Your task to perform on an android device: toggle improve location accuracy Image 0: 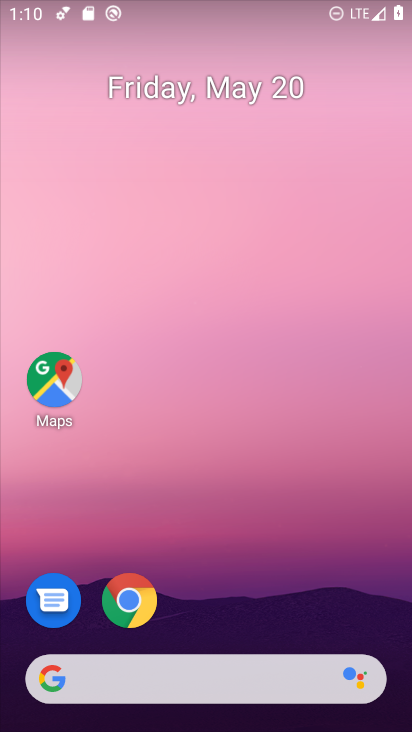
Step 0: drag from (159, 664) to (133, 103)
Your task to perform on an android device: toggle improve location accuracy Image 1: 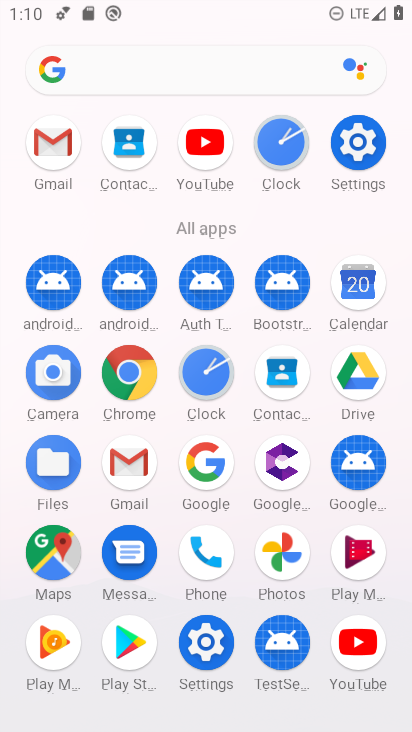
Step 1: click (374, 130)
Your task to perform on an android device: toggle improve location accuracy Image 2: 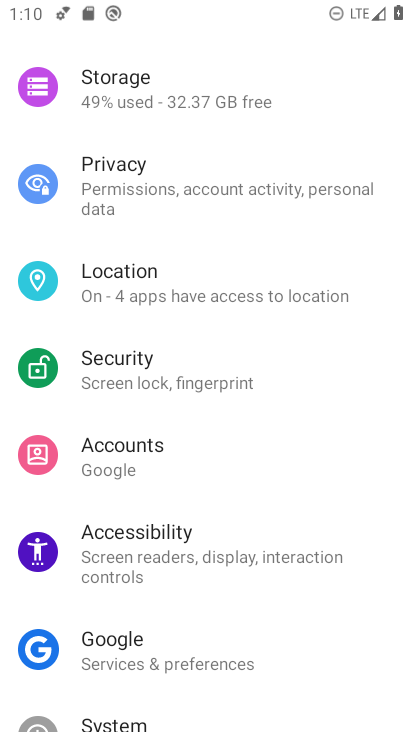
Step 2: click (117, 308)
Your task to perform on an android device: toggle improve location accuracy Image 3: 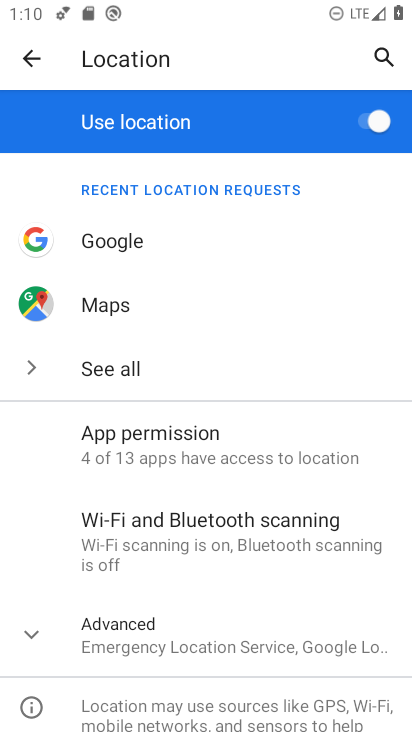
Step 3: click (164, 622)
Your task to perform on an android device: toggle improve location accuracy Image 4: 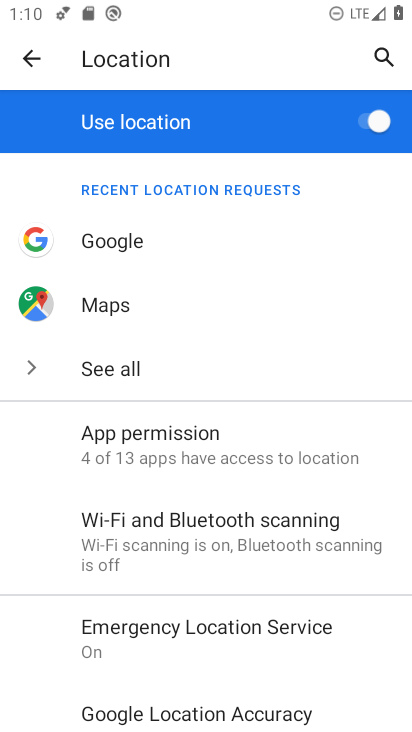
Step 4: click (163, 708)
Your task to perform on an android device: toggle improve location accuracy Image 5: 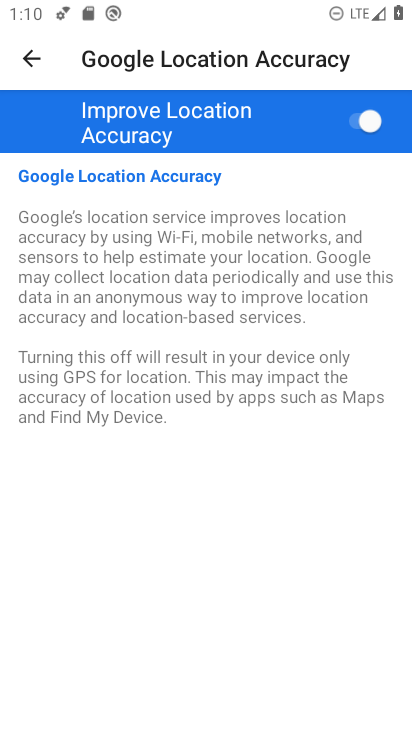
Step 5: click (365, 127)
Your task to perform on an android device: toggle improve location accuracy Image 6: 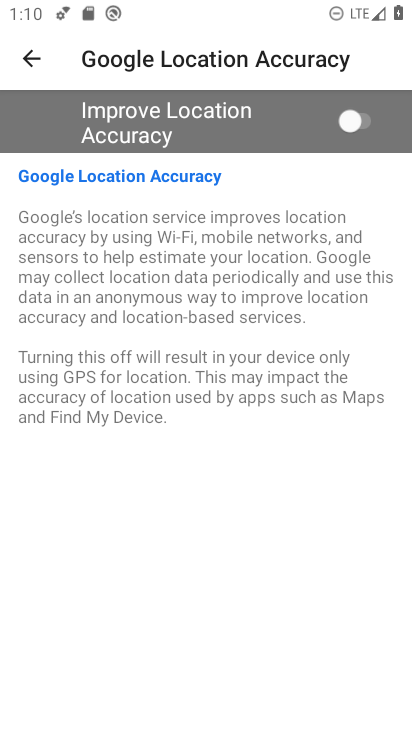
Step 6: task complete